Your task to perform on an android device: Show the shopping cart on amazon.com. Add macbook pro to the cart on amazon.com Image 0: 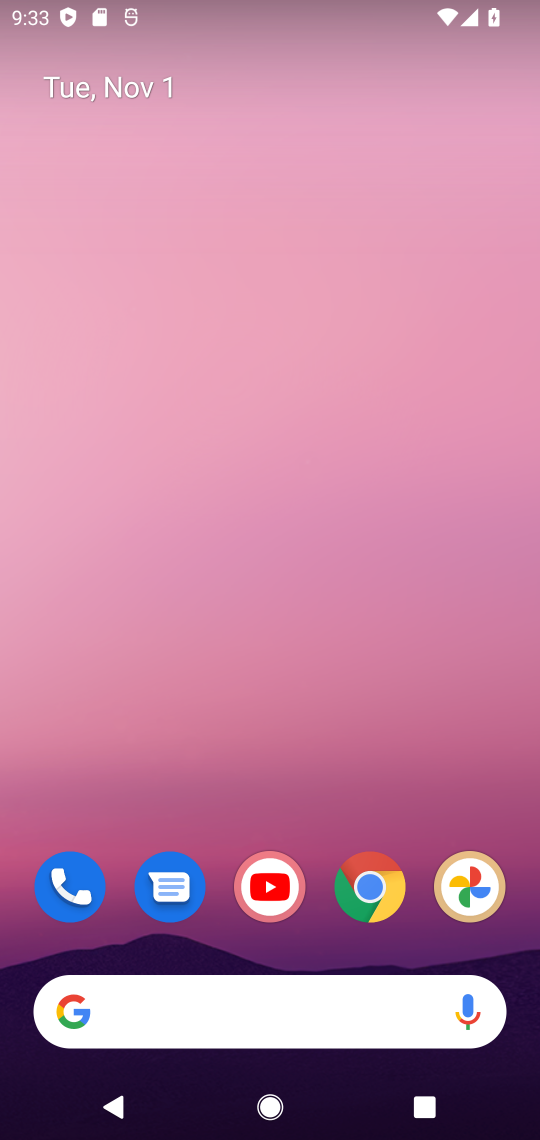
Step 0: click (373, 890)
Your task to perform on an android device: Show the shopping cart on amazon.com. Add macbook pro to the cart on amazon.com Image 1: 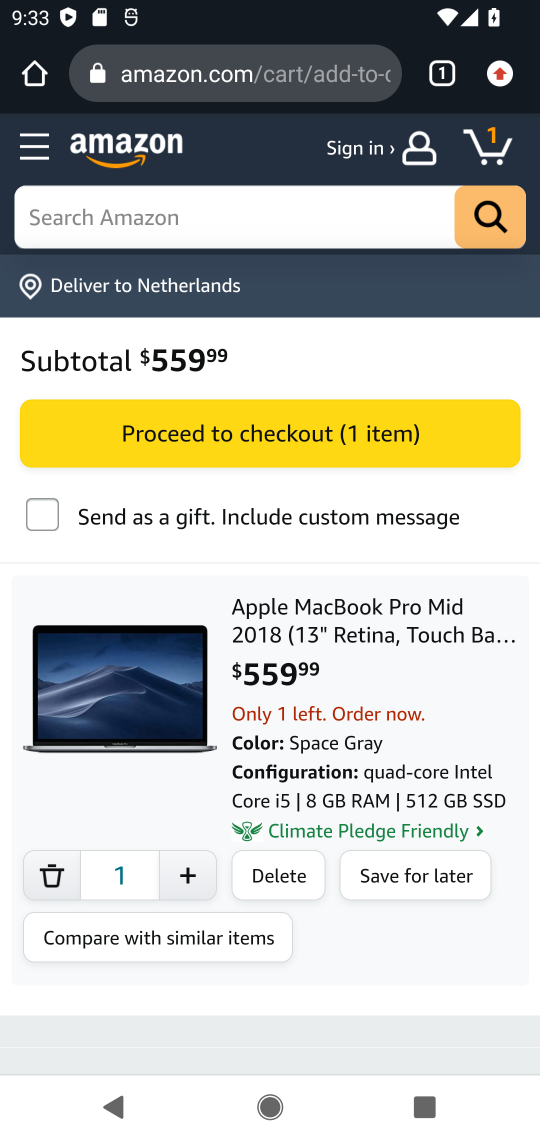
Step 1: click (486, 135)
Your task to perform on an android device: Show the shopping cart on amazon.com. Add macbook pro to the cart on amazon.com Image 2: 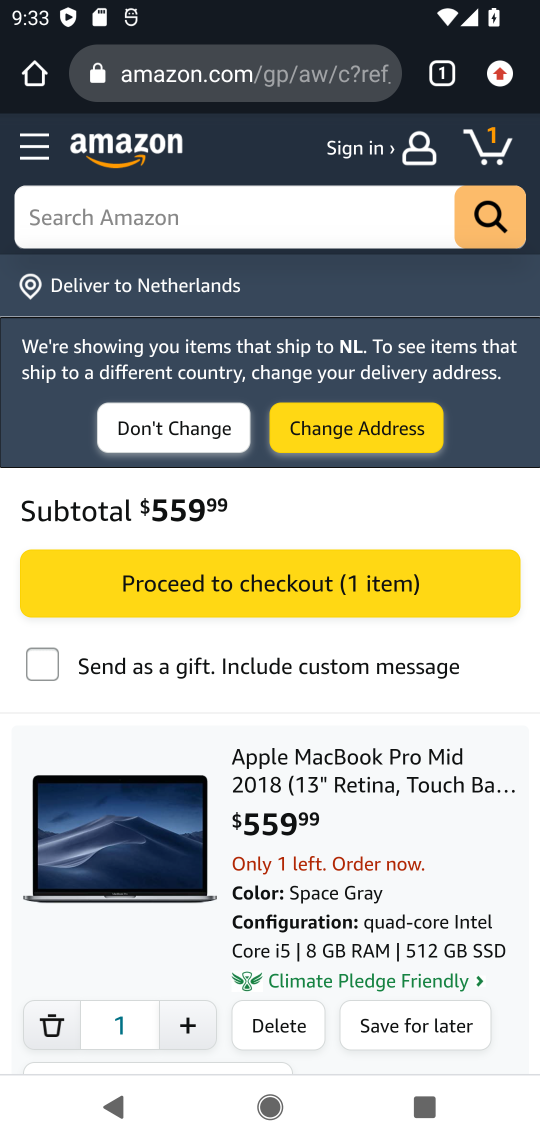
Step 2: click (284, 1020)
Your task to perform on an android device: Show the shopping cart on amazon.com. Add macbook pro to the cart on amazon.com Image 3: 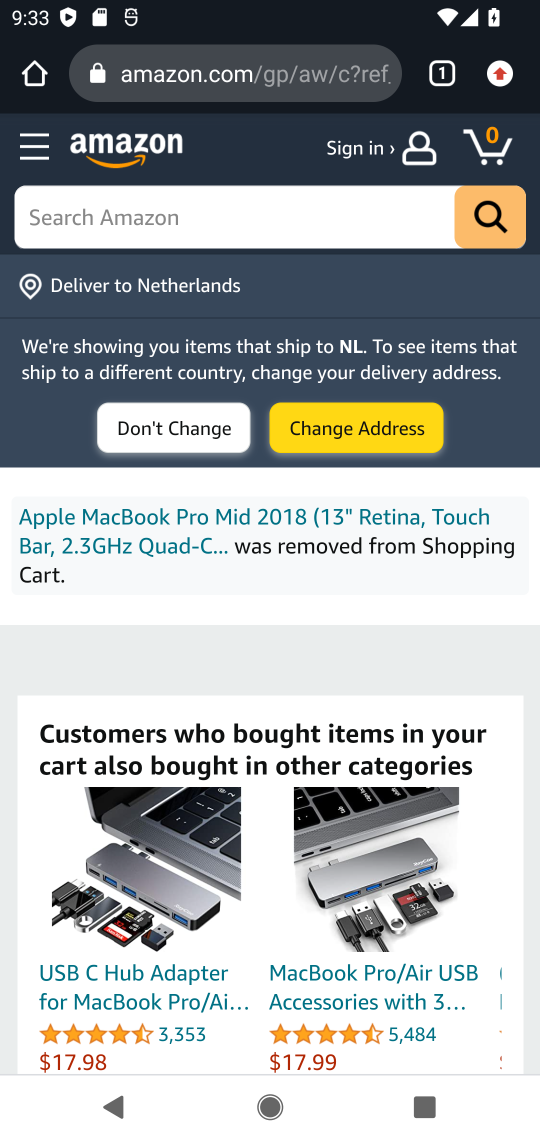
Step 3: click (232, 203)
Your task to perform on an android device: Show the shopping cart on amazon.com. Add macbook pro to the cart on amazon.com Image 4: 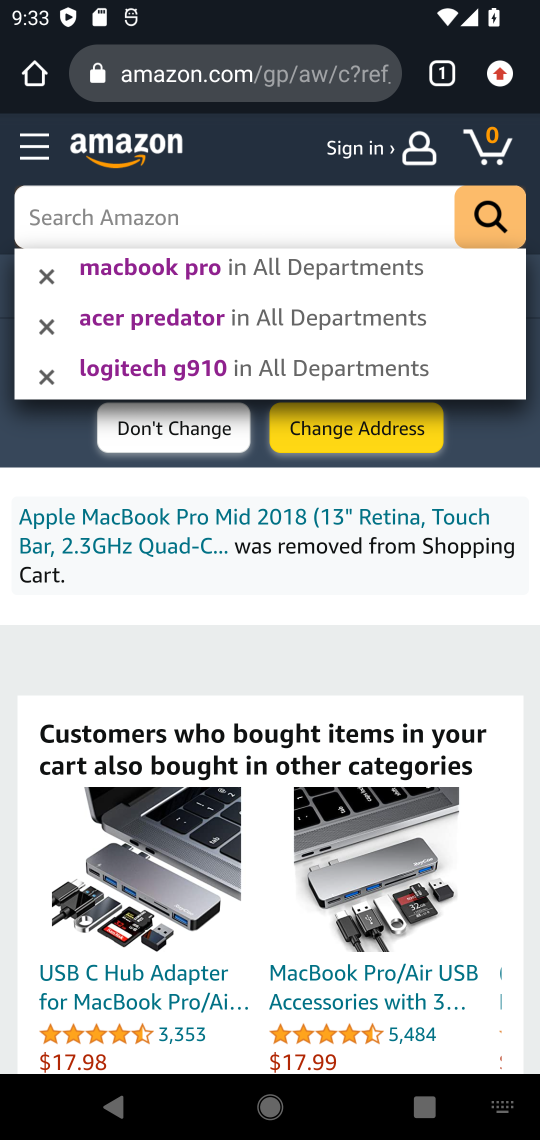
Step 4: type " macbook pro"
Your task to perform on an android device: Show the shopping cart on amazon.com. Add macbook pro to the cart on amazon.com Image 5: 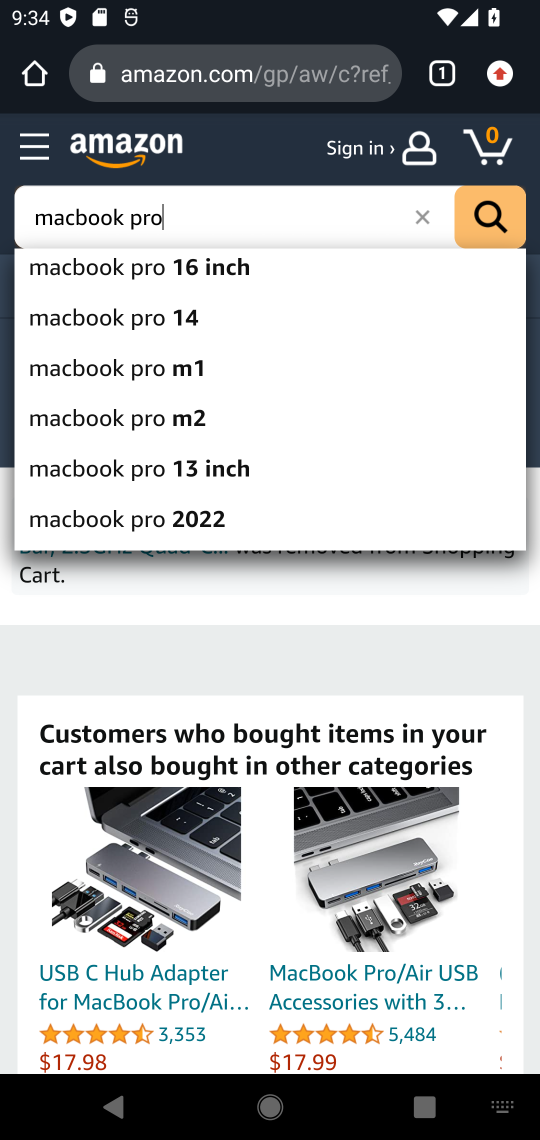
Step 5: click (117, 518)
Your task to perform on an android device: Show the shopping cart on amazon.com. Add macbook pro to the cart on amazon.com Image 6: 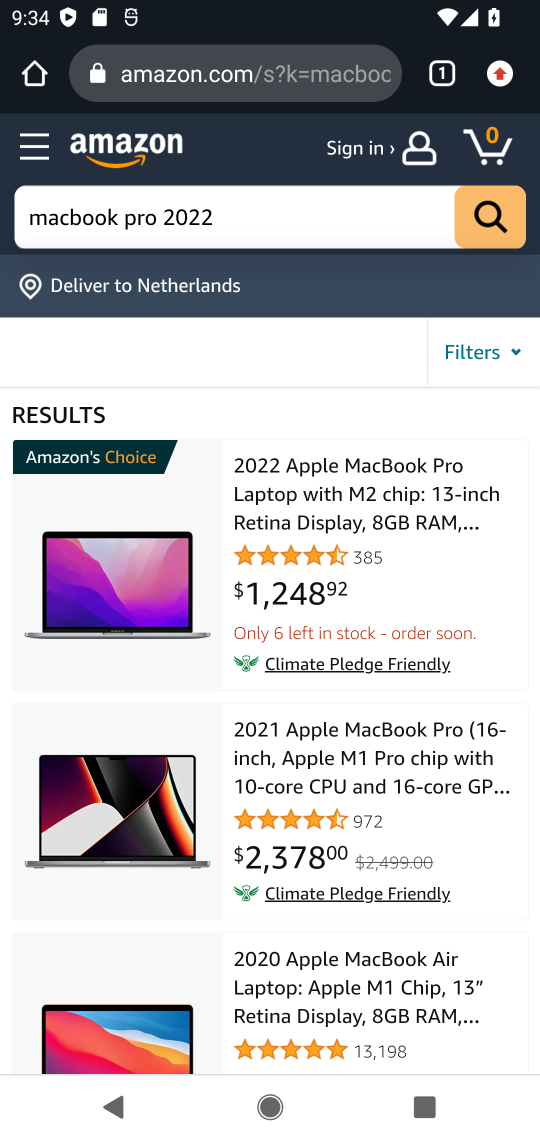
Step 6: click (153, 1022)
Your task to perform on an android device: Show the shopping cart on amazon.com. Add macbook pro to the cart on amazon.com Image 7: 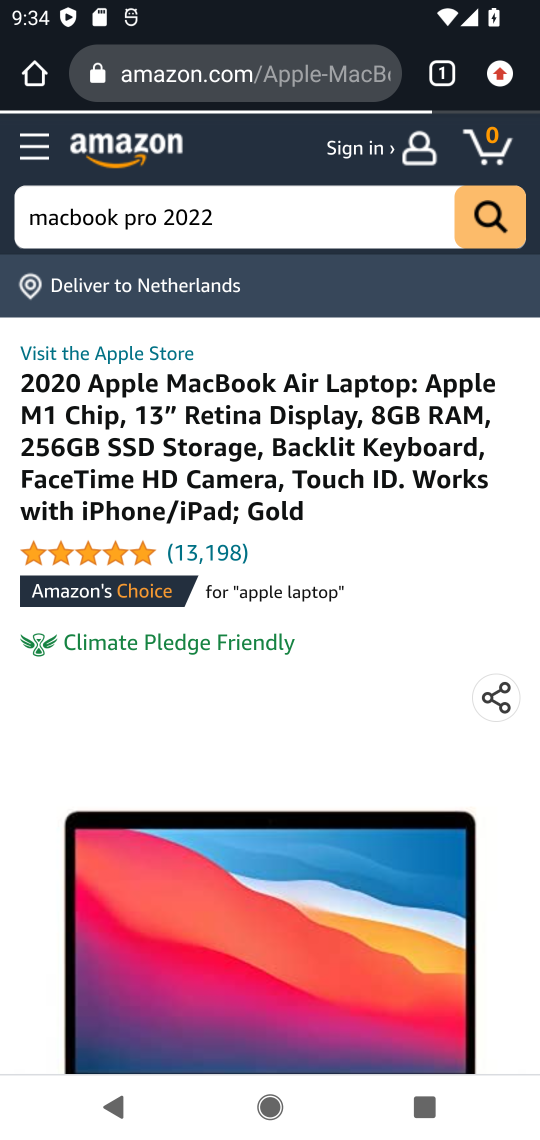
Step 7: drag from (153, 1022) to (371, 515)
Your task to perform on an android device: Show the shopping cart on amazon.com. Add macbook pro to the cart on amazon.com Image 8: 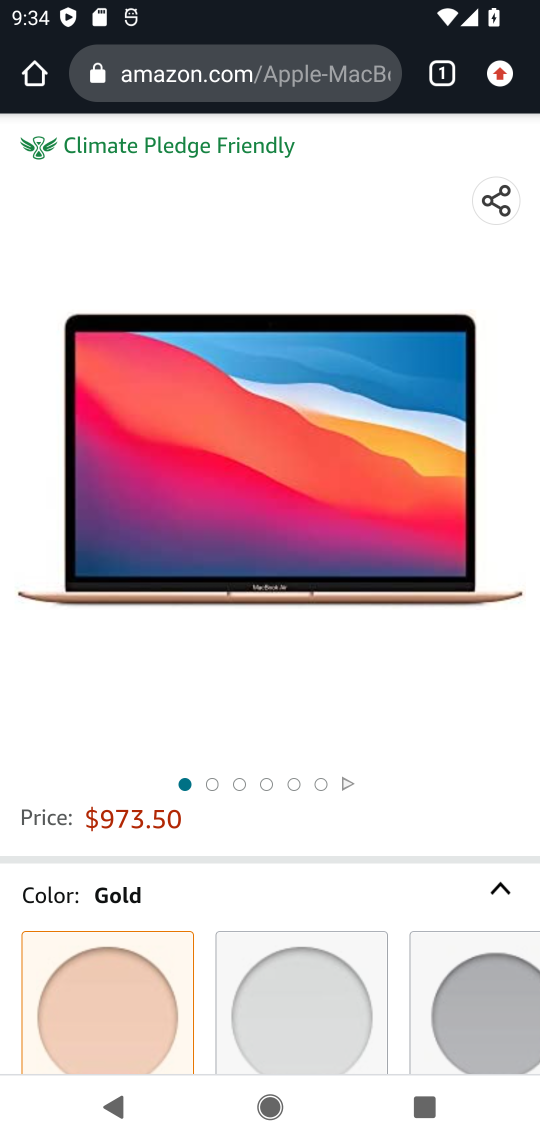
Step 8: drag from (283, 928) to (299, 430)
Your task to perform on an android device: Show the shopping cart on amazon.com. Add macbook pro to the cart on amazon.com Image 9: 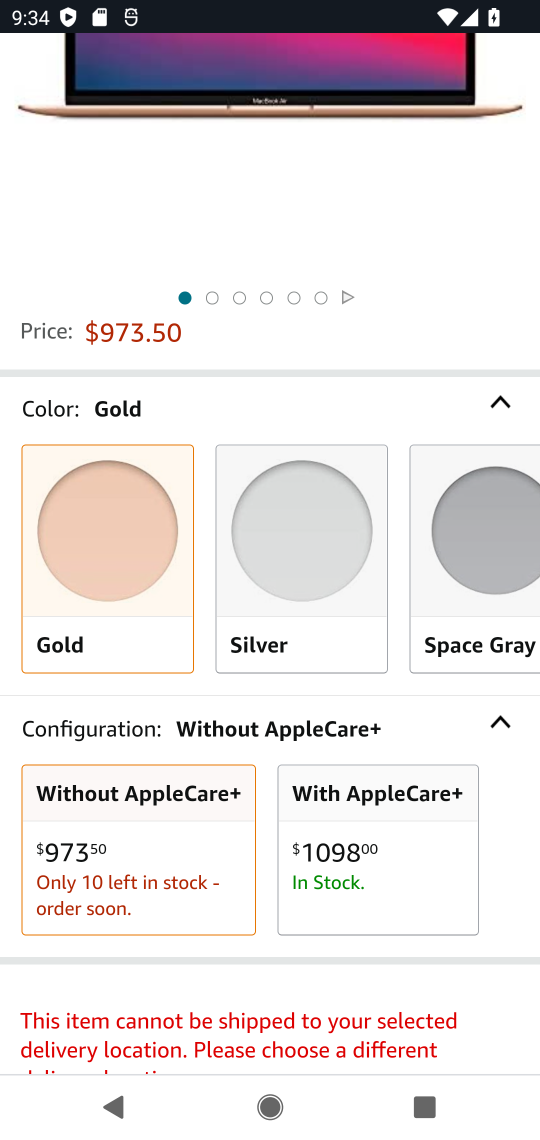
Step 9: drag from (326, 864) to (355, 321)
Your task to perform on an android device: Show the shopping cart on amazon.com. Add macbook pro to the cart on amazon.com Image 10: 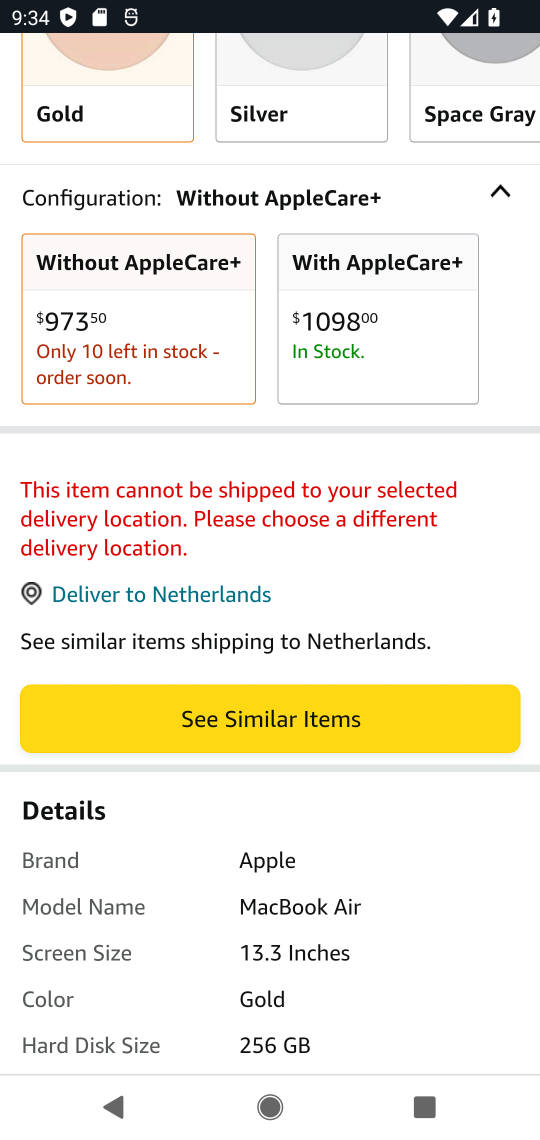
Step 10: press back button
Your task to perform on an android device: Show the shopping cart on amazon.com. Add macbook pro to the cart on amazon.com Image 11: 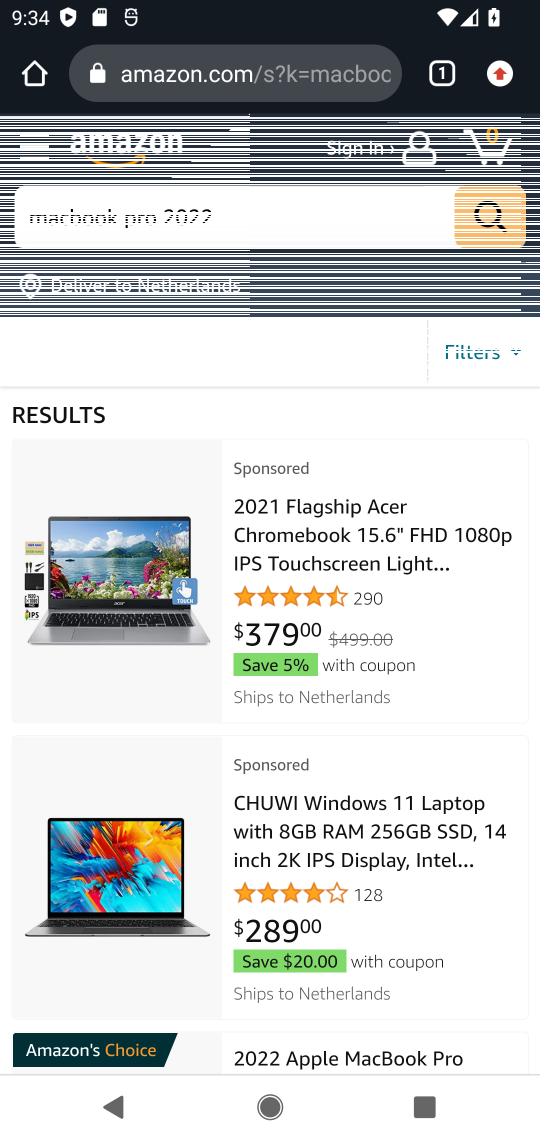
Step 11: drag from (405, 482) to (414, 371)
Your task to perform on an android device: Show the shopping cart on amazon.com. Add macbook pro to the cart on amazon.com Image 12: 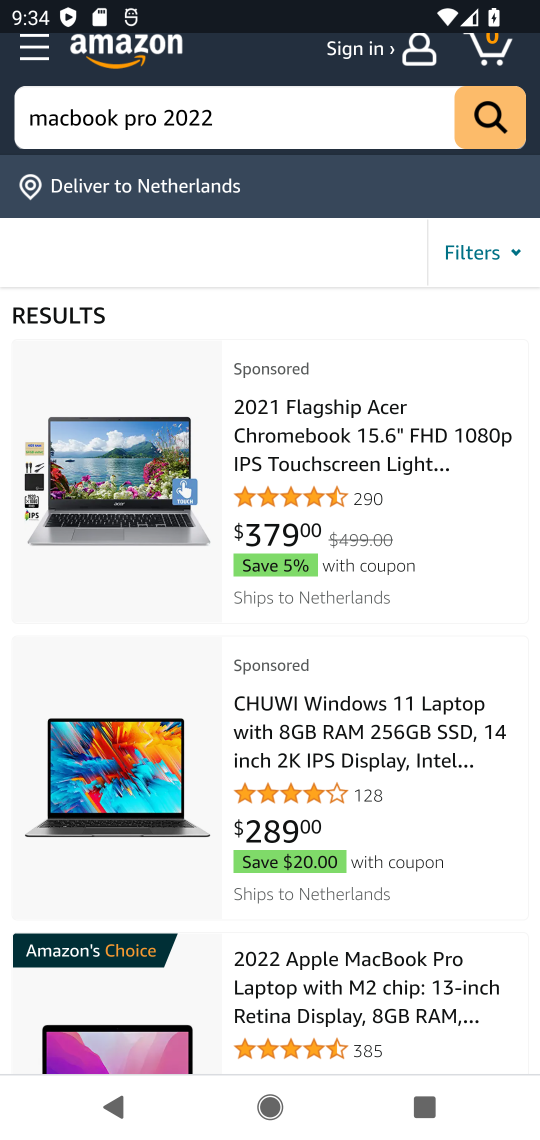
Step 12: drag from (346, 869) to (370, 491)
Your task to perform on an android device: Show the shopping cart on amazon.com. Add macbook pro to the cart on amazon.com Image 13: 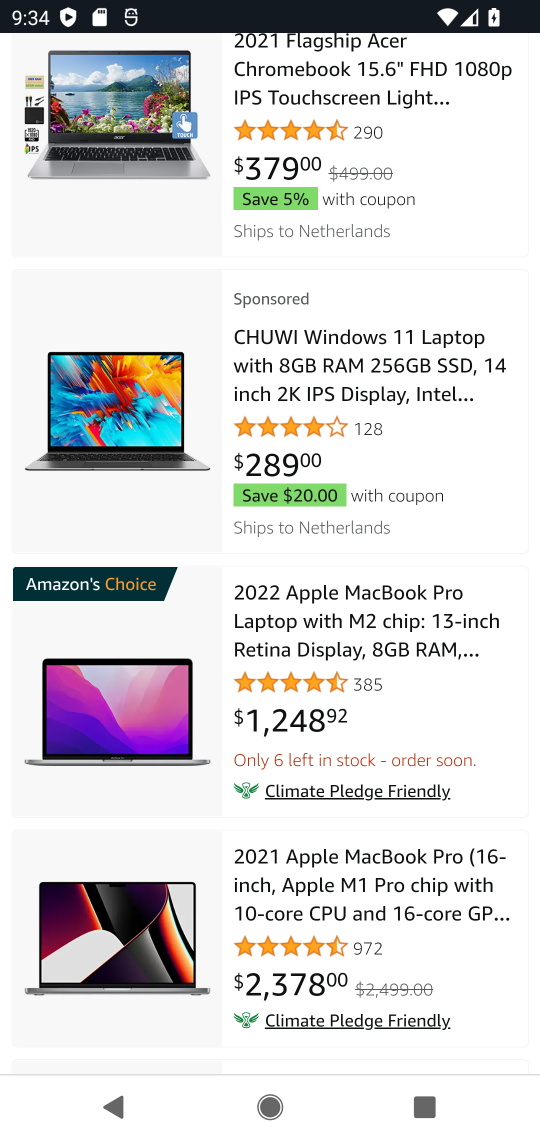
Step 13: click (115, 922)
Your task to perform on an android device: Show the shopping cart on amazon.com. Add macbook pro to the cart on amazon.com Image 14: 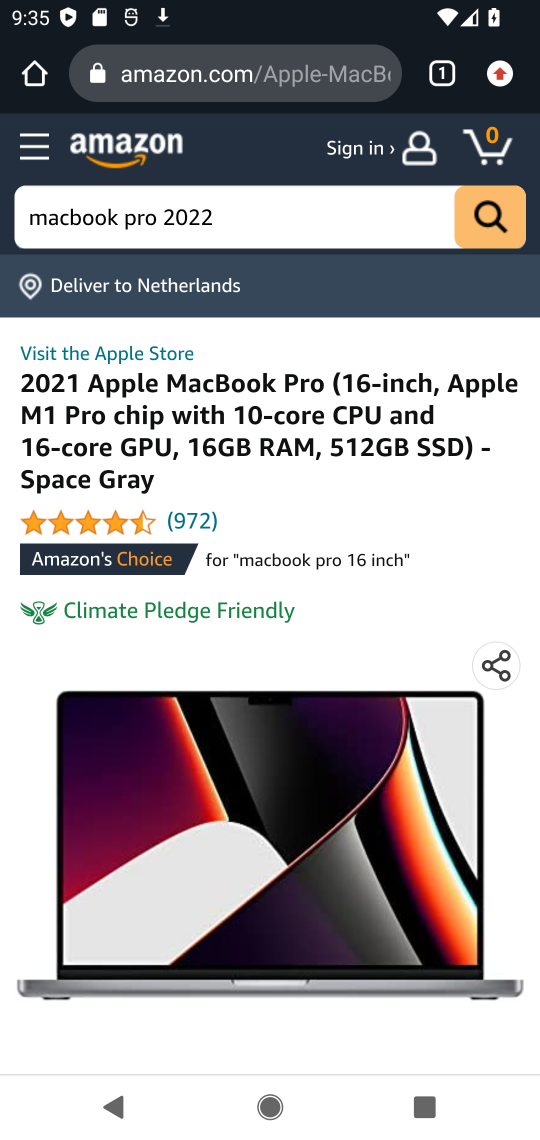
Step 14: press back button
Your task to perform on an android device: Show the shopping cart on amazon.com. Add macbook pro to the cart on amazon.com Image 15: 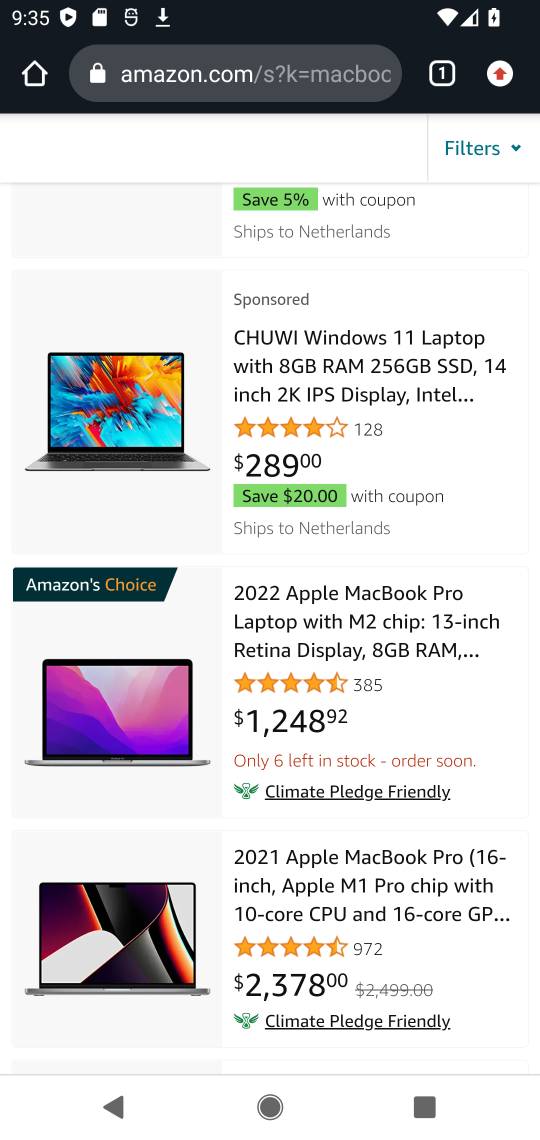
Step 15: click (89, 690)
Your task to perform on an android device: Show the shopping cart on amazon.com. Add macbook pro to the cart on amazon.com Image 16: 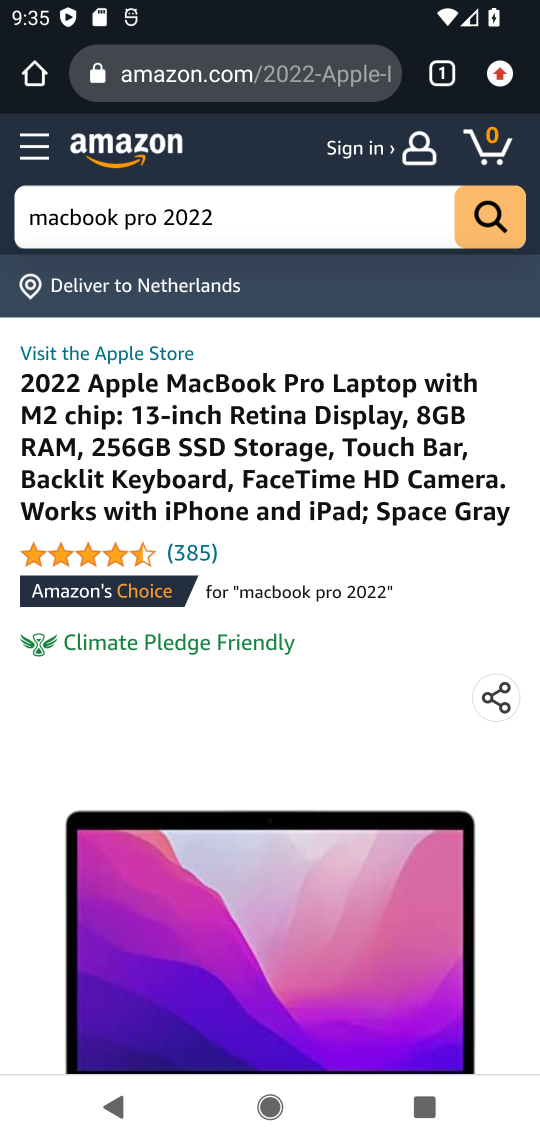
Step 16: drag from (183, 750) to (273, 285)
Your task to perform on an android device: Show the shopping cart on amazon.com. Add macbook pro to the cart on amazon.com Image 17: 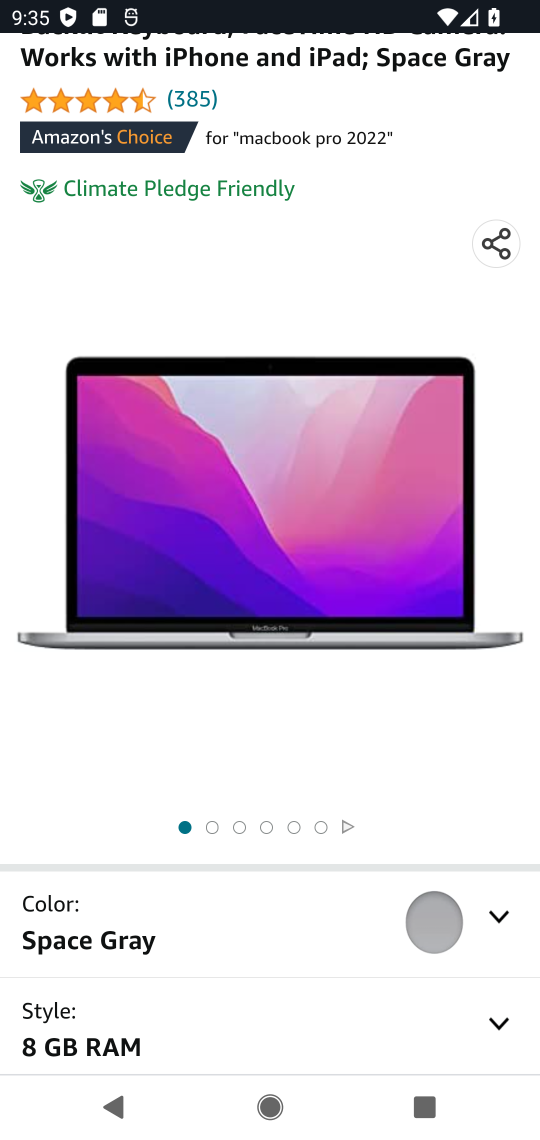
Step 17: drag from (328, 908) to (363, 487)
Your task to perform on an android device: Show the shopping cart on amazon.com. Add macbook pro to the cart on amazon.com Image 18: 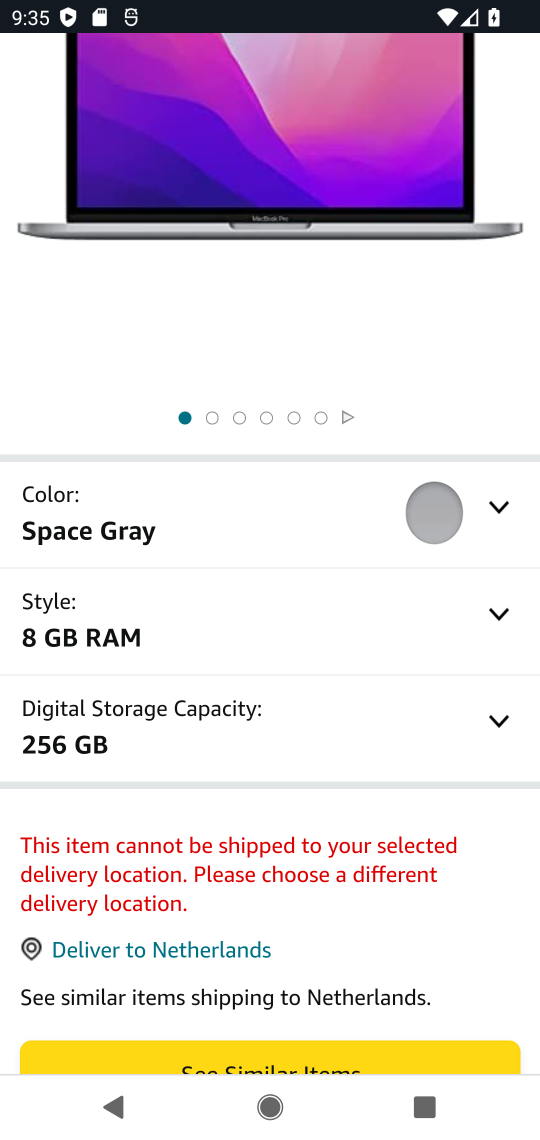
Step 18: drag from (360, 968) to (357, 534)
Your task to perform on an android device: Show the shopping cart on amazon.com. Add macbook pro to the cart on amazon.com Image 19: 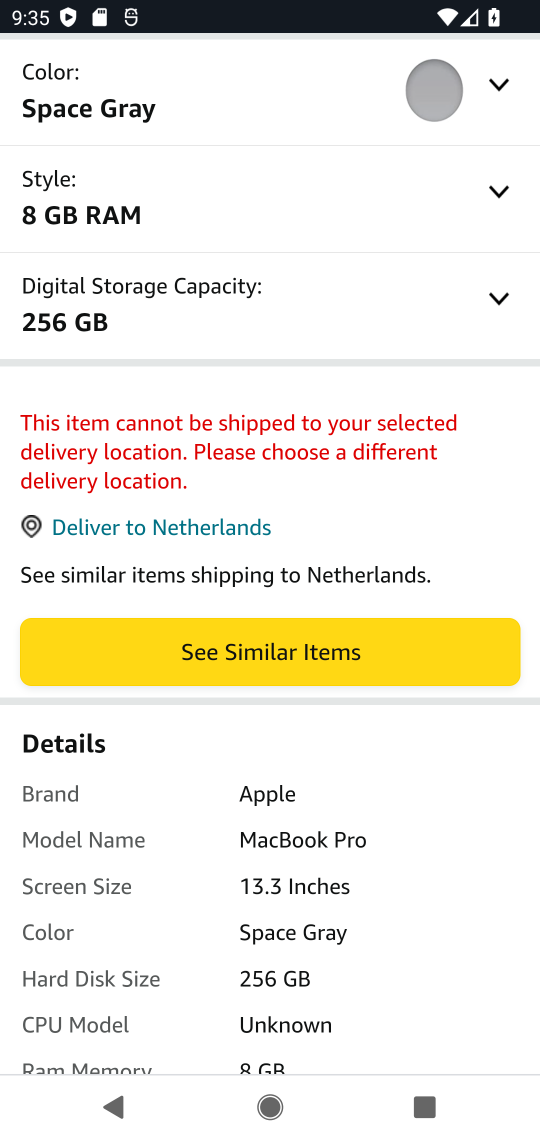
Step 19: press back button
Your task to perform on an android device: Show the shopping cart on amazon.com. Add macbook pro to the cart on amazon.com Image 20: 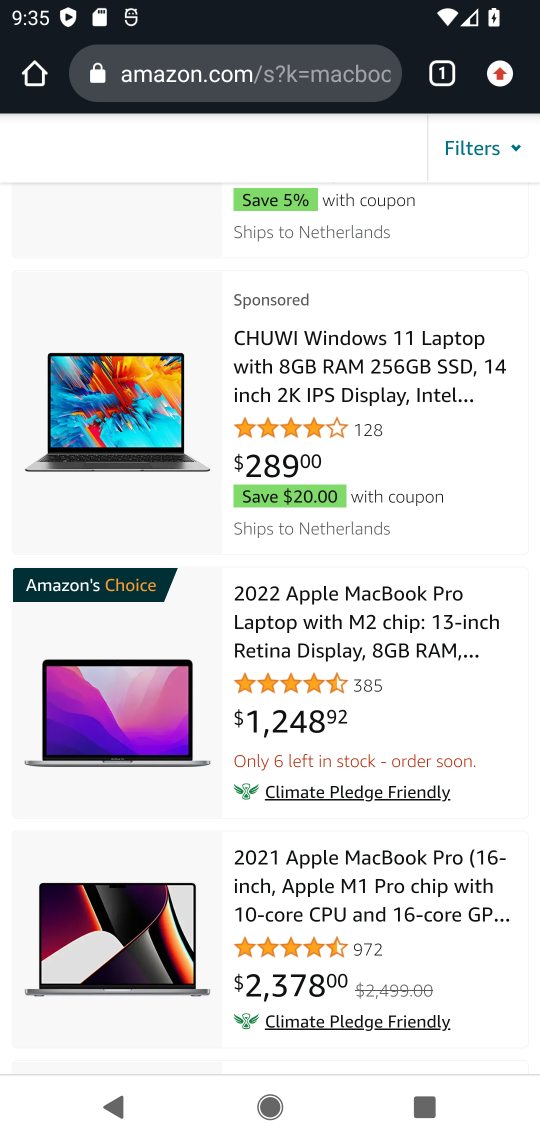
Step 20: click (312, 826)
Your task to perform on an android device: Show the shopping cart on amazon.com. Add macbook pro to the cart on amazon.com Image 21: 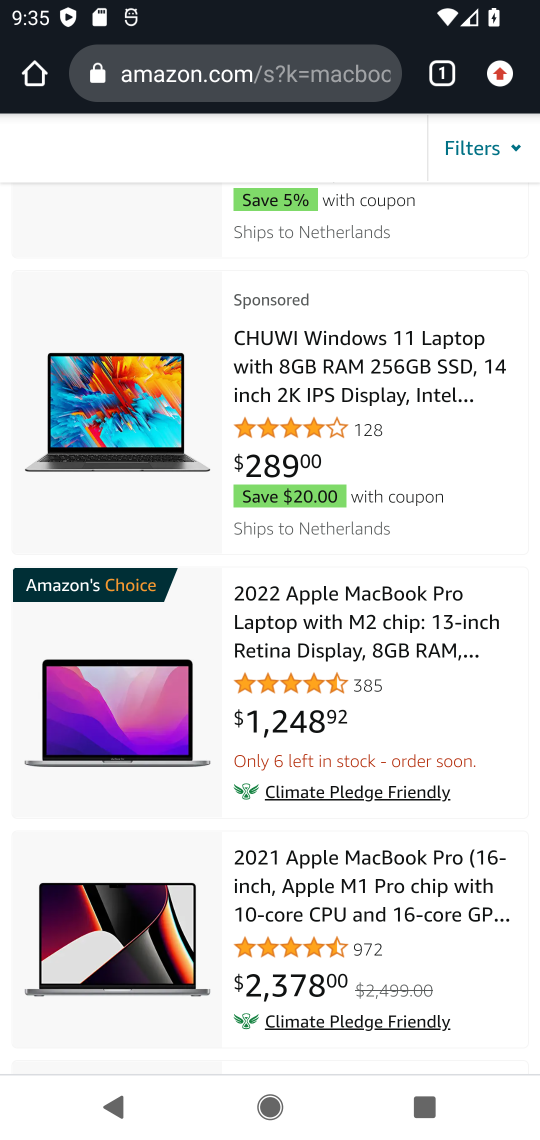
Step 21: drag from (250, 341) to (249, 664)
Your task to perform on an android device: Show the shopping cart on amazon.com. Add macbook pro to the cart on amazon.com Image 22: 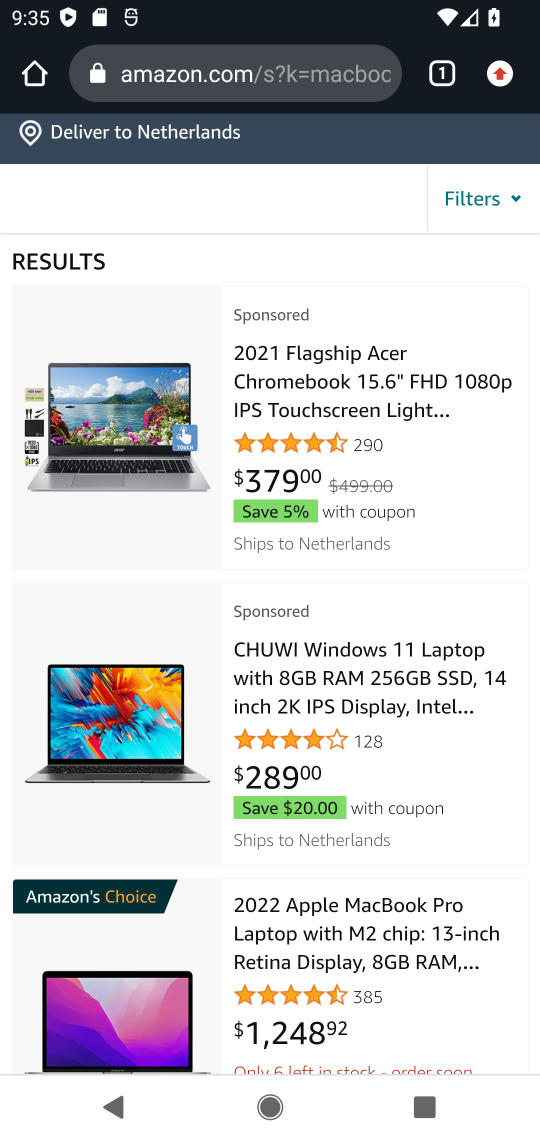
Step 22: click (124, 396)
Your task to perform on an android device: Show the shopping cart on amazon.com. Add macbook pro to the cart on amazon.com Image 23: 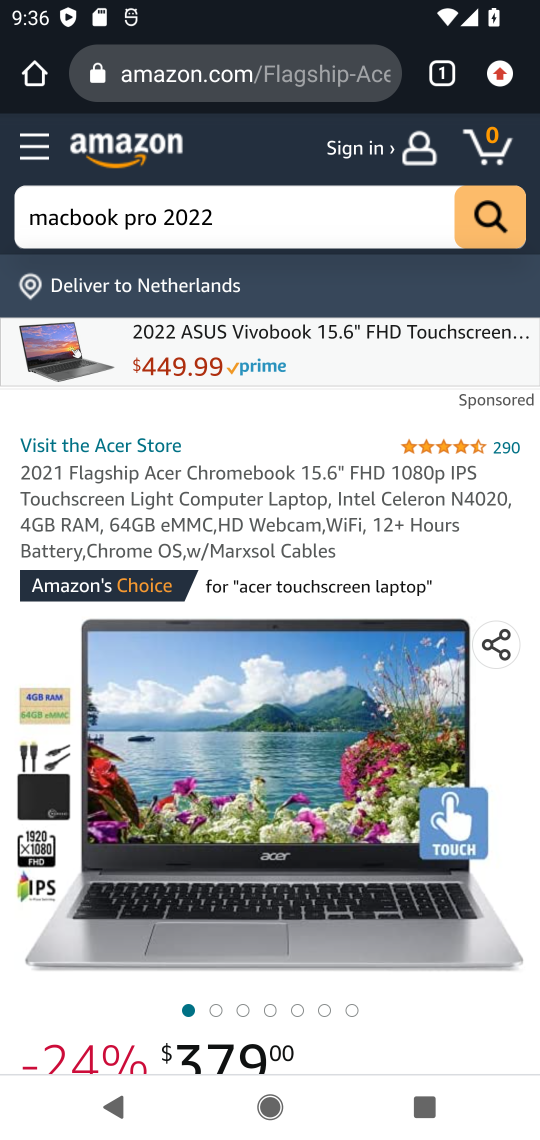
Step 23: drag from (208, 883) to (266, 356)
Your task to perform on an android device: Show the shopping cart on amazon.com. Add macbook pro to the cart on amazon.com Image 24: 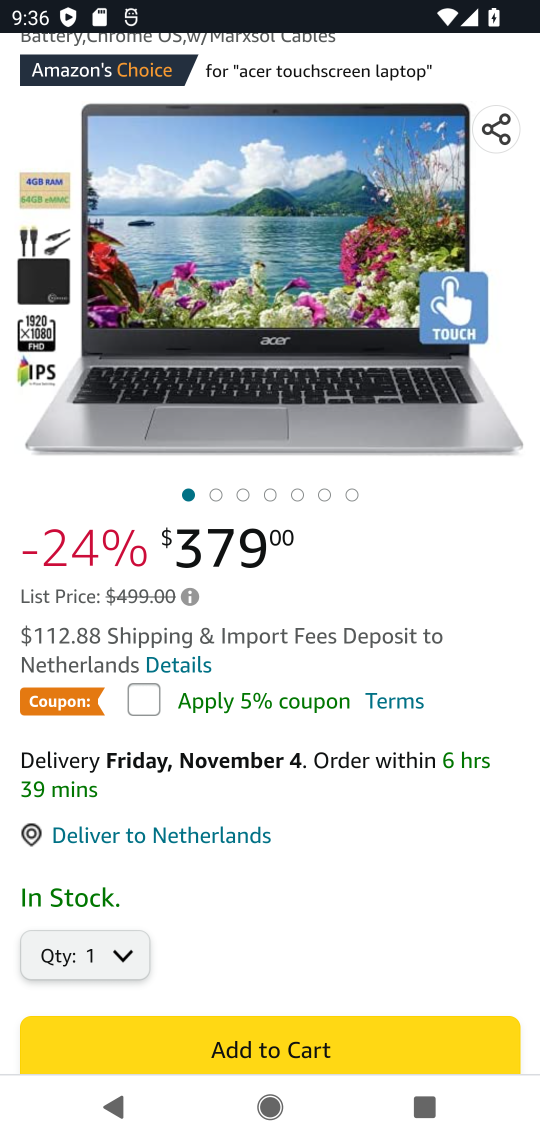
Step 24: click (334, 1037)
Your task to perform on an android device: Show the shopping cart on amazon.com. Add macbook pro to the cart on amazon.com Image 25: 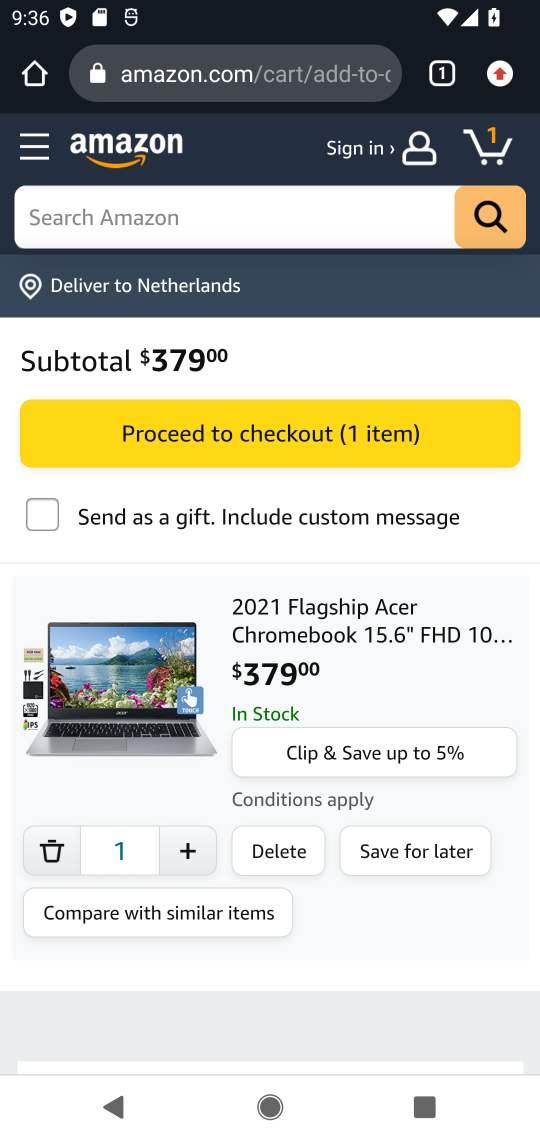
Step 25: task complete